Your task to perform on an android device: Open Chrome and go to settings Image 0: 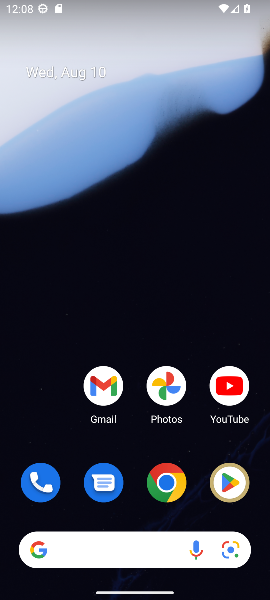
Step 0: click (167, 496)
Your task to perform on an android device: Open Chrome and go to settings Image 1: 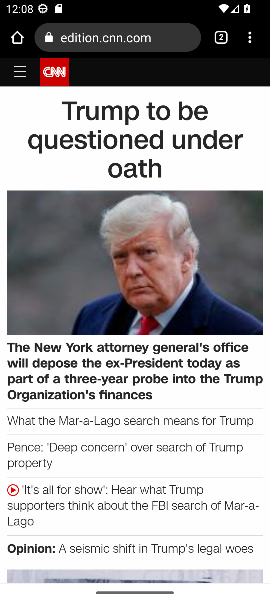
Step 1: task complete